Your task to perform on an android device: Go to Wikipedia Image 0: 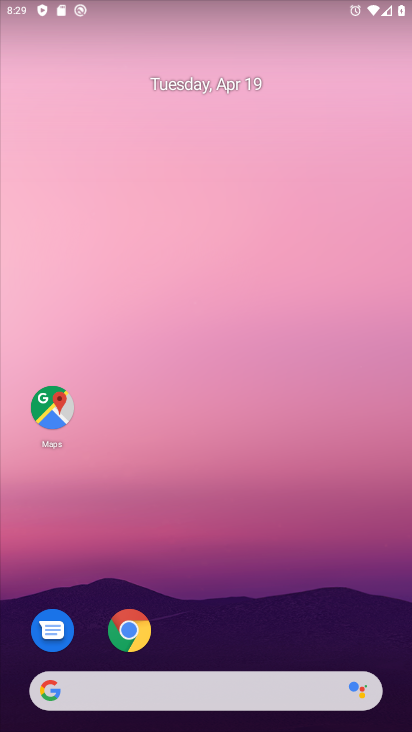
Step 0: drag from (223, 681) to (299, 192)
Your task to perform on an android device: Go to Wikipedia Image 1: 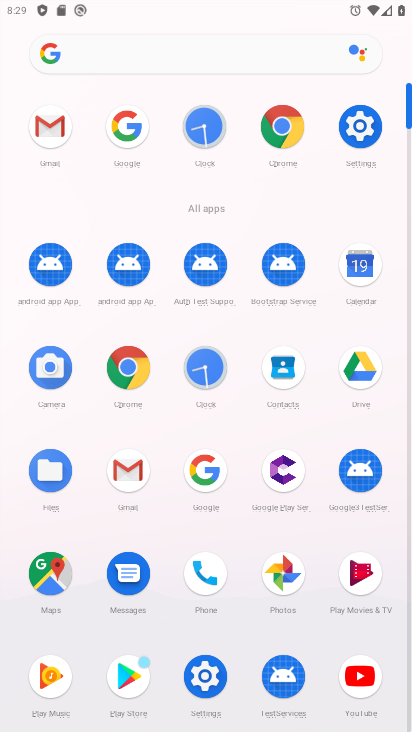
Step 1: click (275, 137)
Your task to perform on an android device: Go to Wikipedia Image 2: 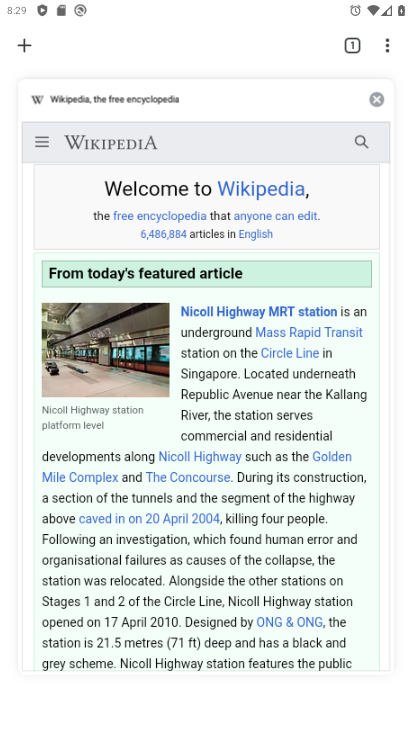
Step 2: click (262, 204)
Your task to perform on an android device: Go to Wikipedia Image 3: 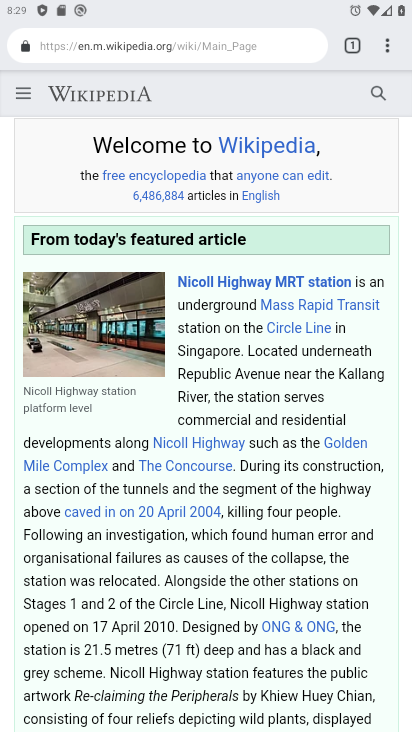
Step 3: task complete